Your task to perform on an android device: install app "Walmart Shopping & Grocery" Image 0: 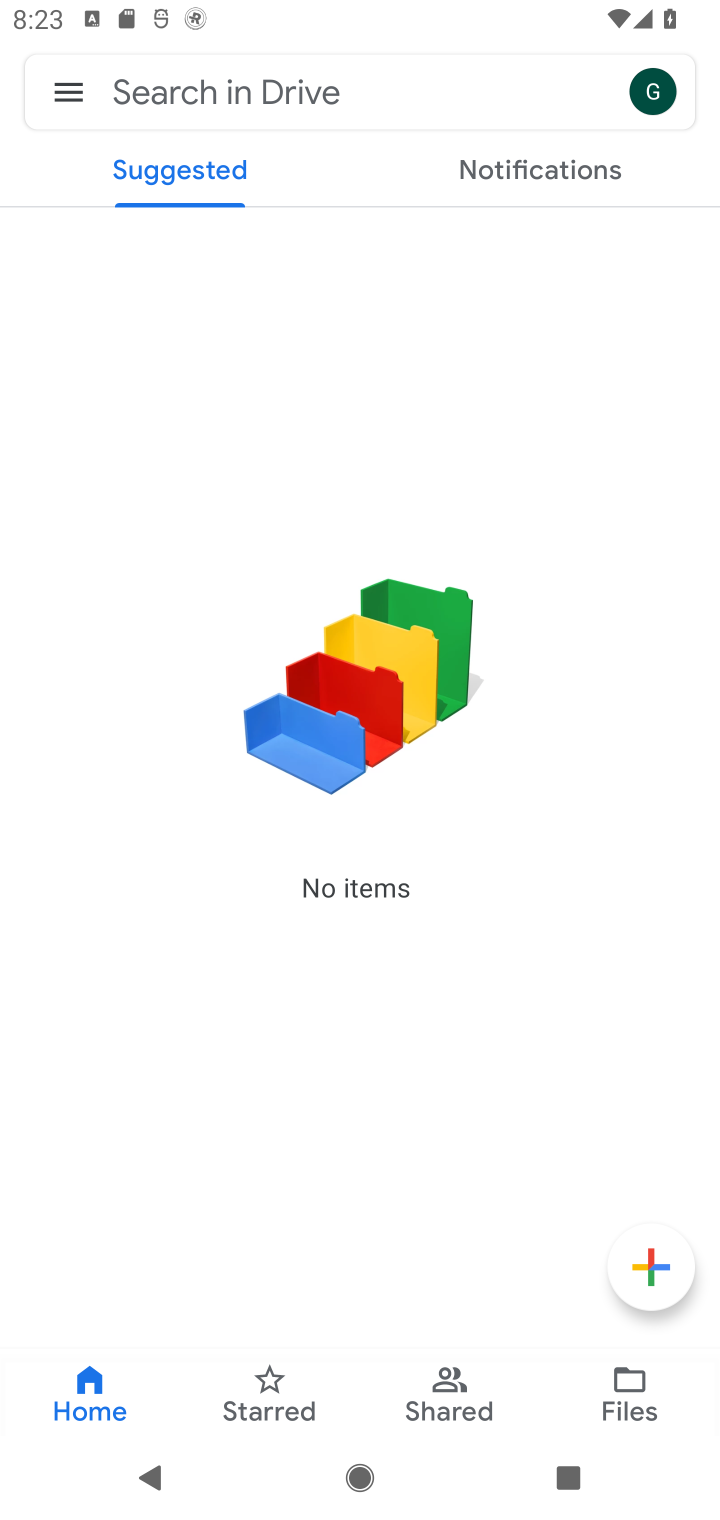
Step 0: press home button
Your task to perform on an android device: install app "Walmart Shopping & Grocery" Image 1: 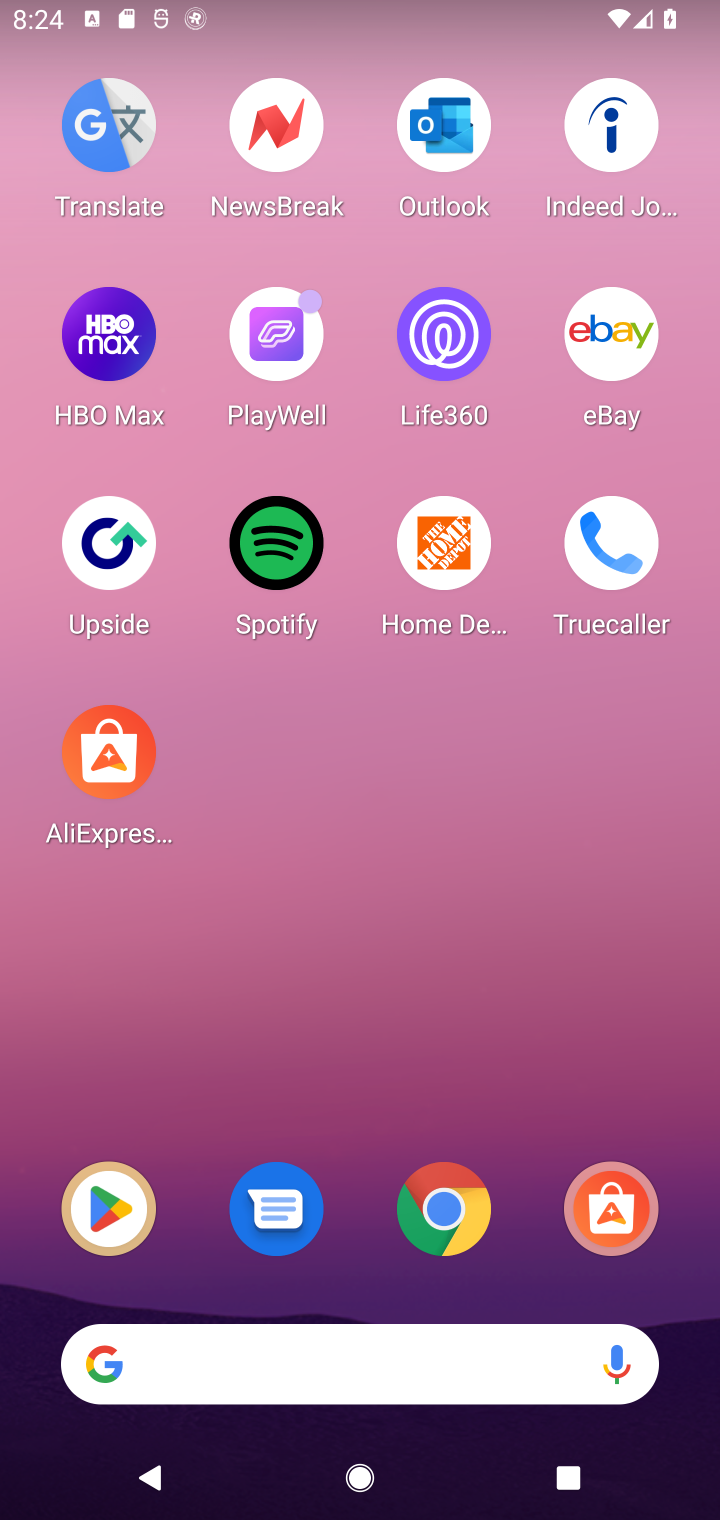
Step 1: click (110, 1214)
Your task to perform on an android device: install app "Walmart Shopping & Grocery" Image 2: 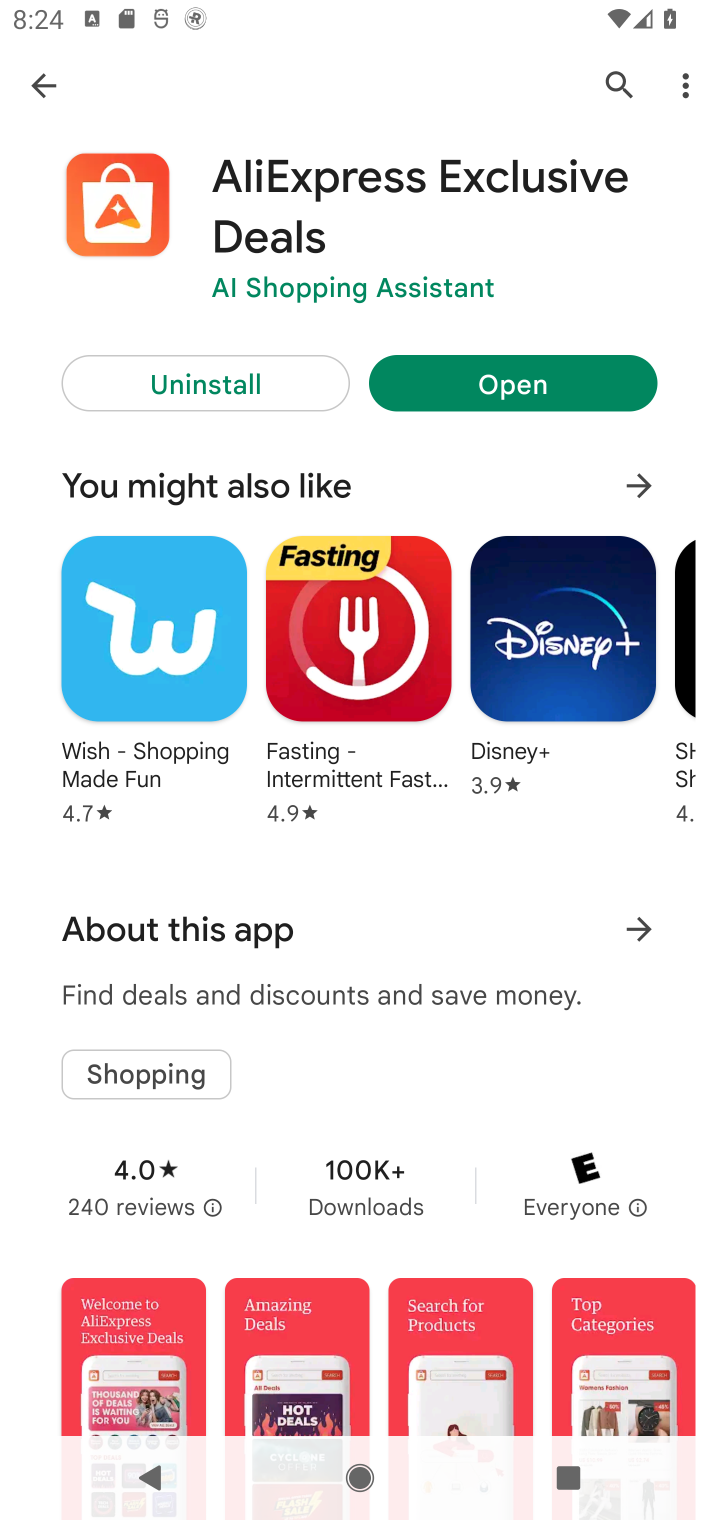
Step 2: click (614, 81)
Your task to perform on an android device: install app "Walmart Shopping & Grocery" Image 3: 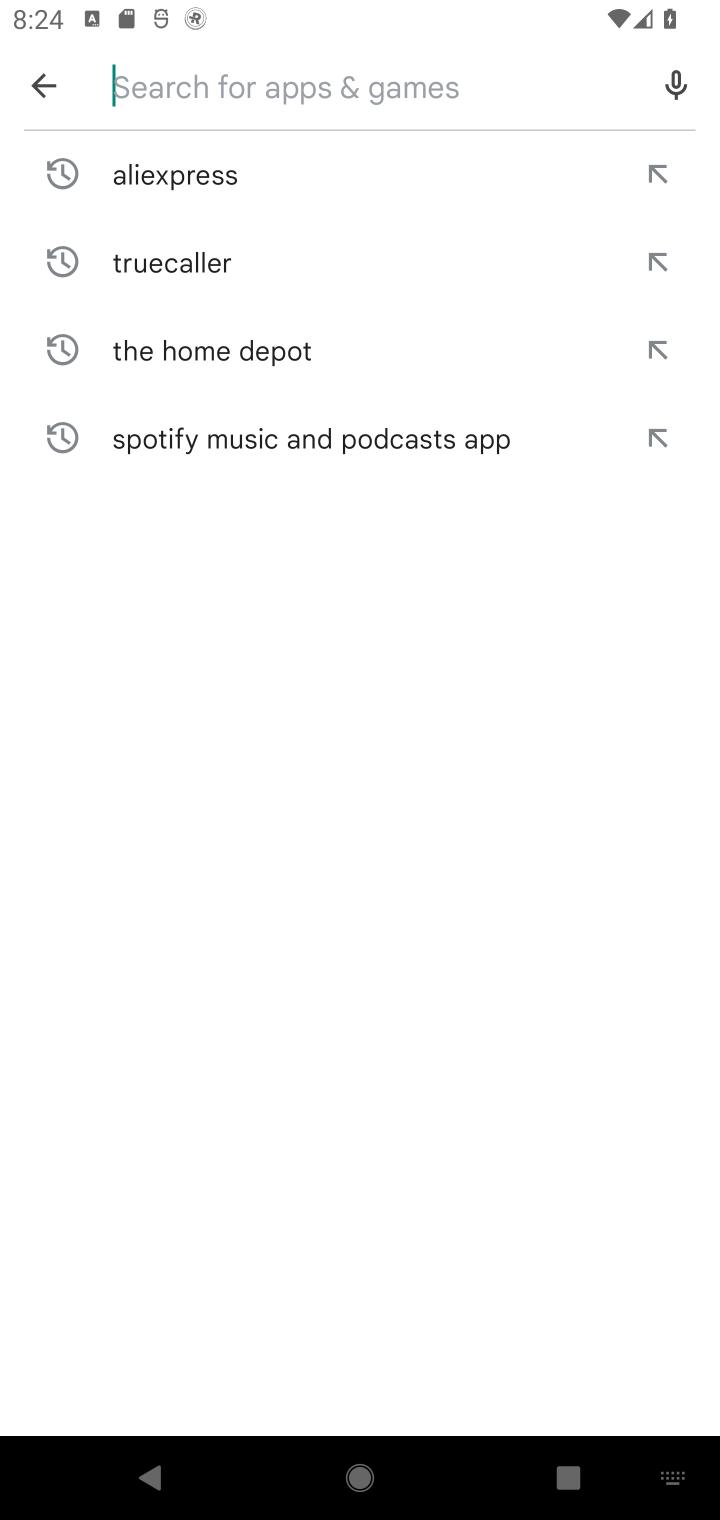
Step 3: type "Walmart Shopping & Grocery"
Your task to perform on an android device: install app "Walmart Shopping & Grocery" Image 4: 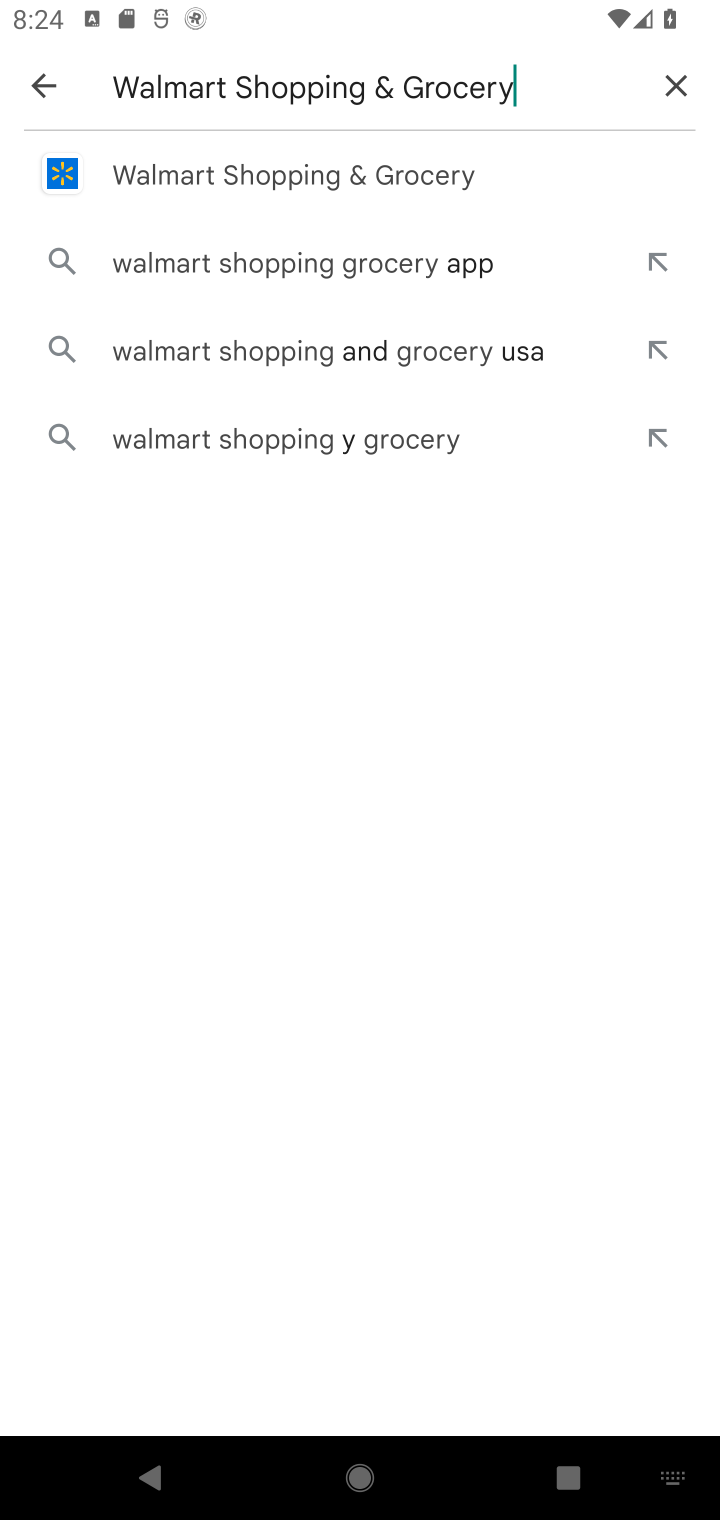
Step 4: click (206, 184)
Your task to perform on an android device: install app "Walmart Shopping & Grocery" Image 5: 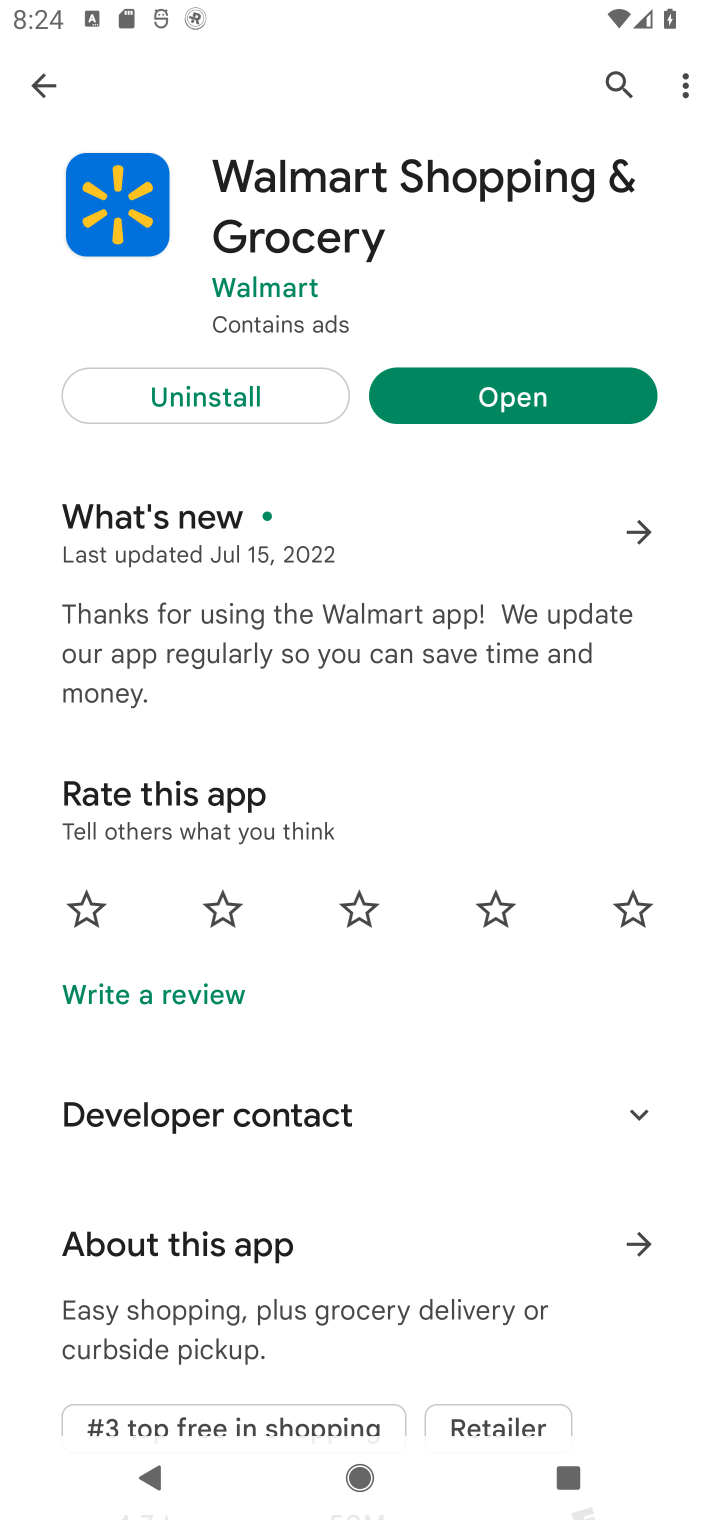
Step 5: task complete